Your task to perform on an android device: install app "LinkedIn" Image 0: 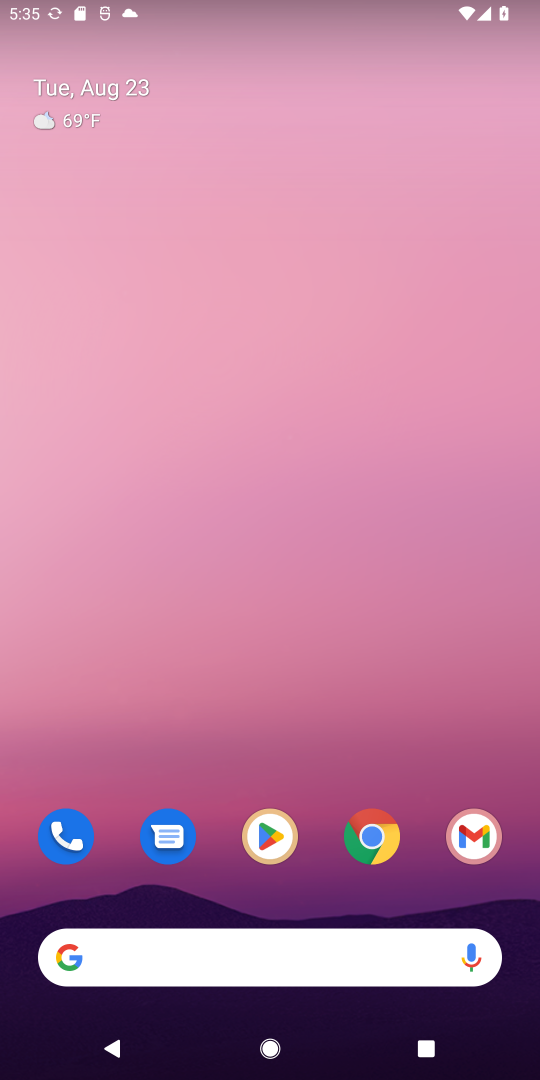
Step 0: click (269, 831)
Your task to perform on an android device: install app "LinkedIn" Image 1: 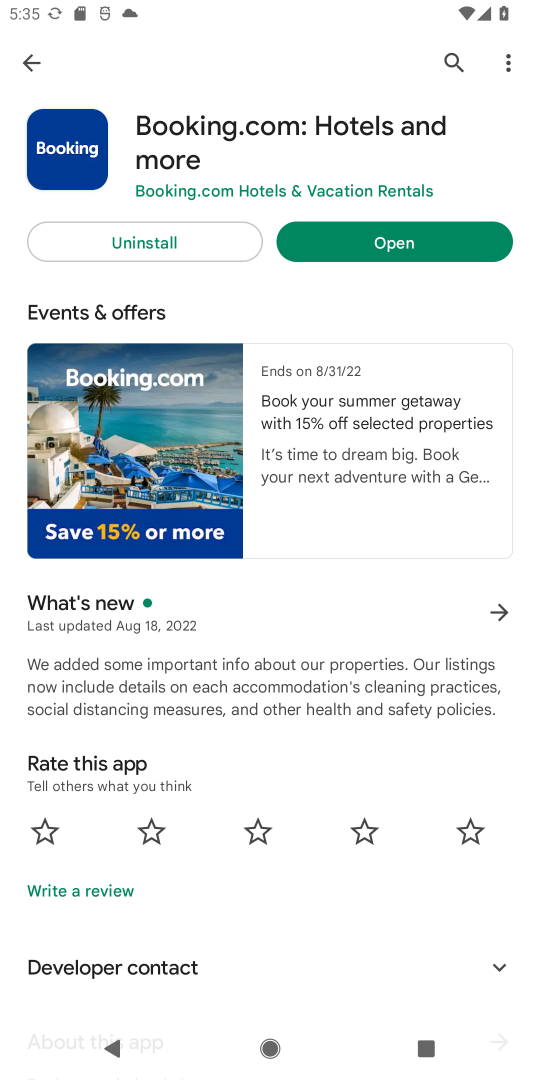
Step 1: click (447, 72)
Your task to perform on an android device: install app "LinkedIn" Image 2: 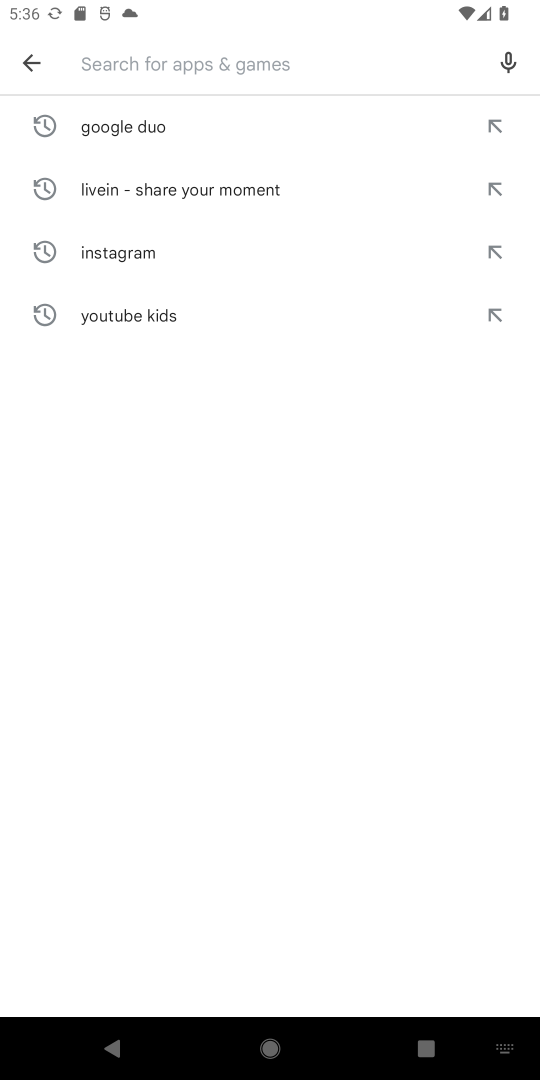
Step 2: type "LinkedI"
Your task to perform on an android device: install app "LinkedIn" Image 3: 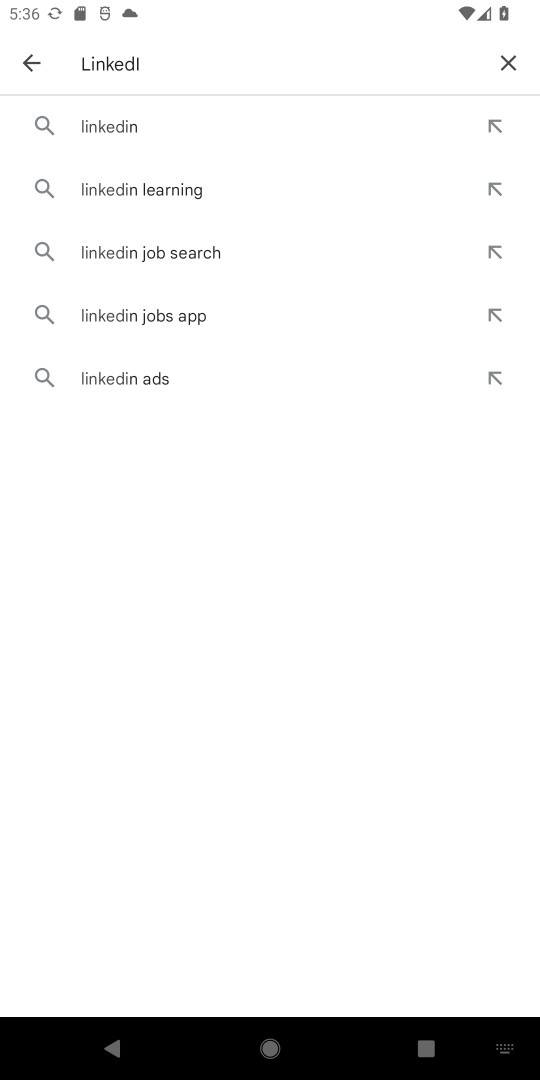
Step 3: click (118, 120)
Your task to perform on an android device: install app "LinkedIn" Image 4: 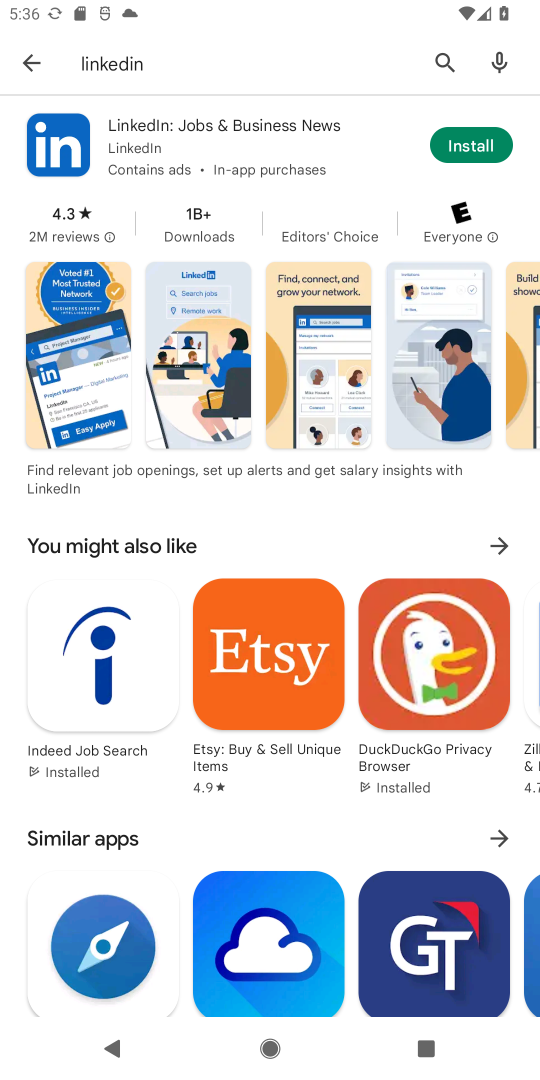
Step 4: click (465, 137)
Your task to perform on an android device: install app "LinkedIn" Image 5: 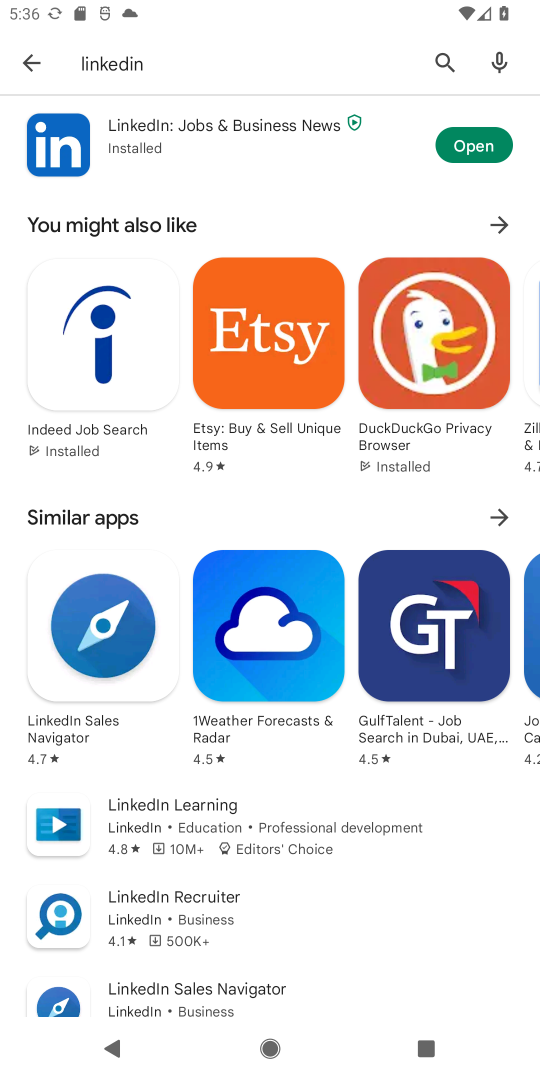
Step 5: click (133, 124)
Your task to perform on an android device: install app "LinkedIn" Image 6: 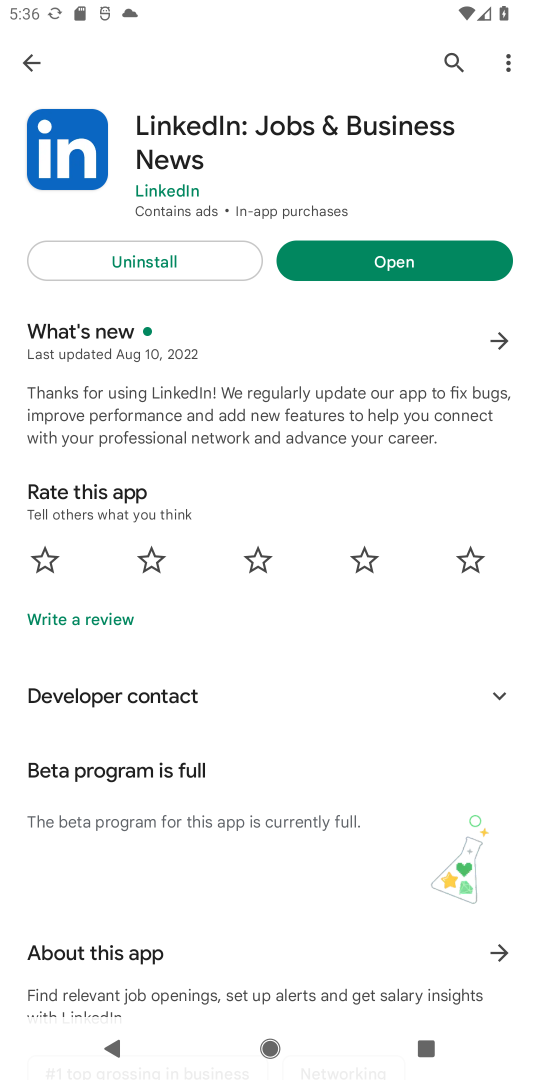
Step 6: task complete